Your task to perform on an android device: Show the shopping cart on costco.com. Image 0: 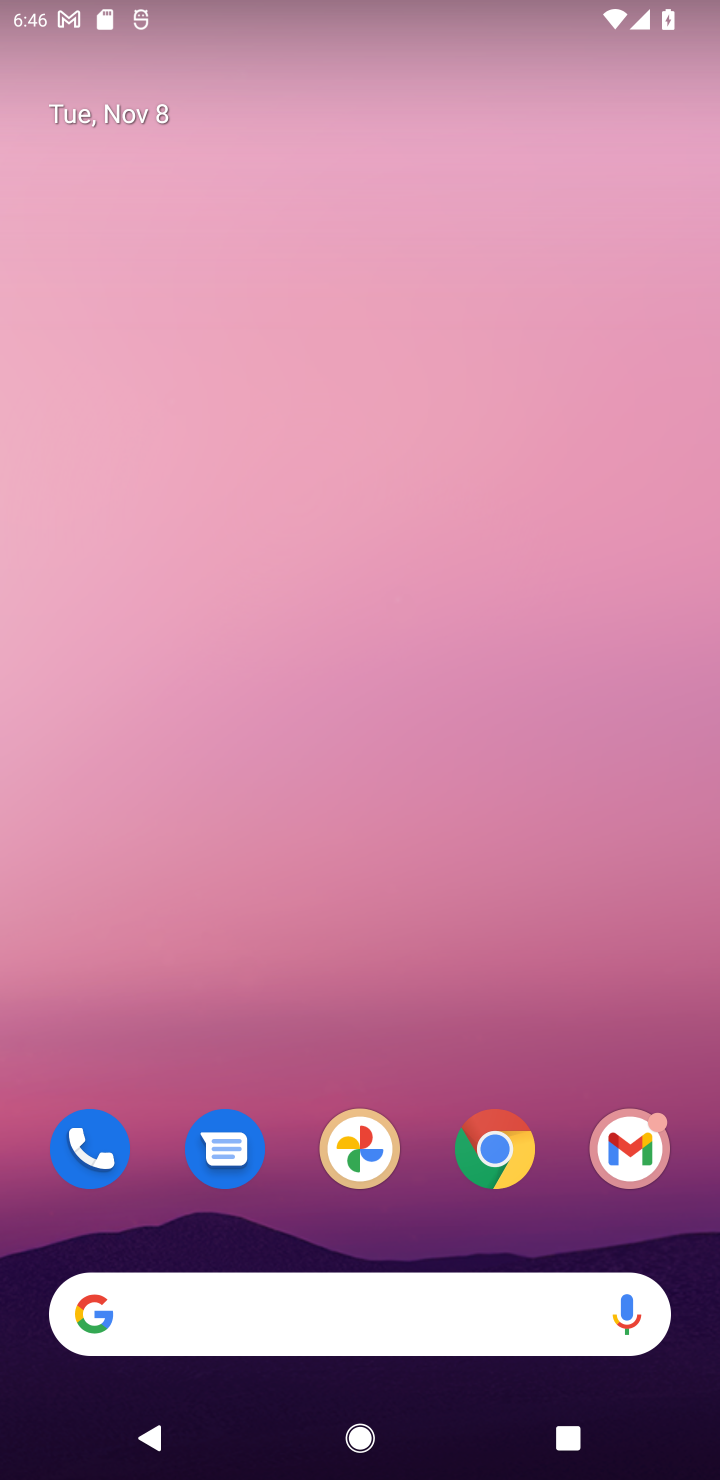
Step 0: click (481, 1166)
Your task to perform on an android device: Show the shopping cart on costco.com. Image 1: 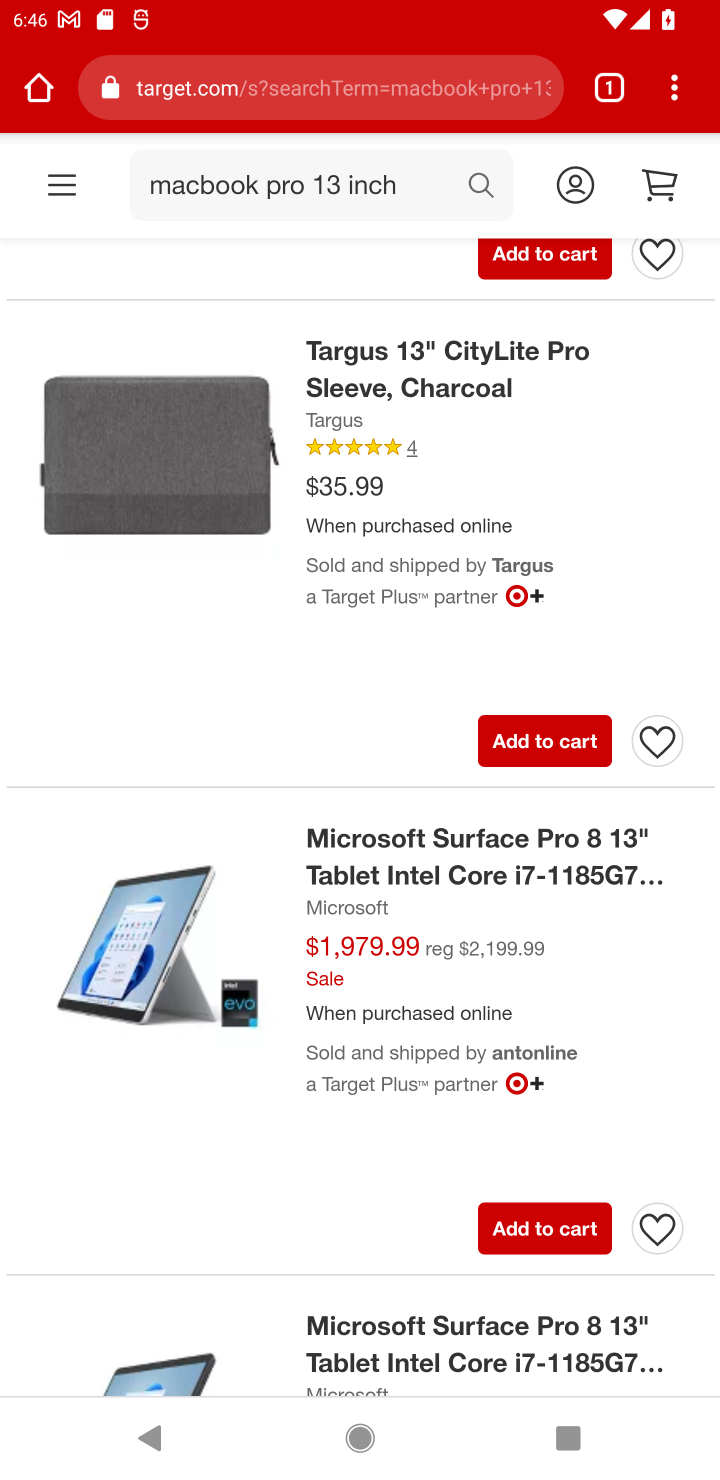
Step 1: click (355, 74)
Your task to perform on an android device: Show the shopping cart on costco.com. Image 2: 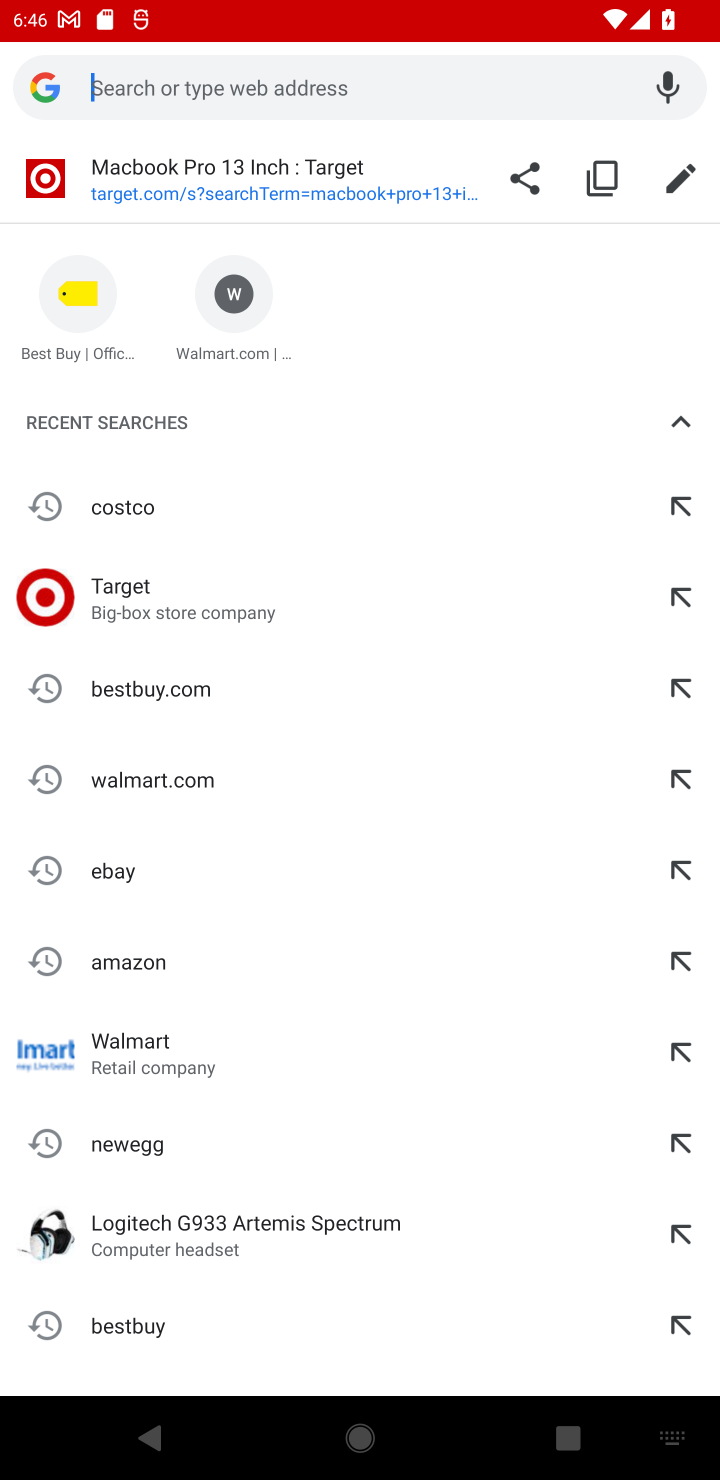
Step 2: type "costco.com"
Your task to perform on an android device: Show the shopping cart on costco.com. Image 3: 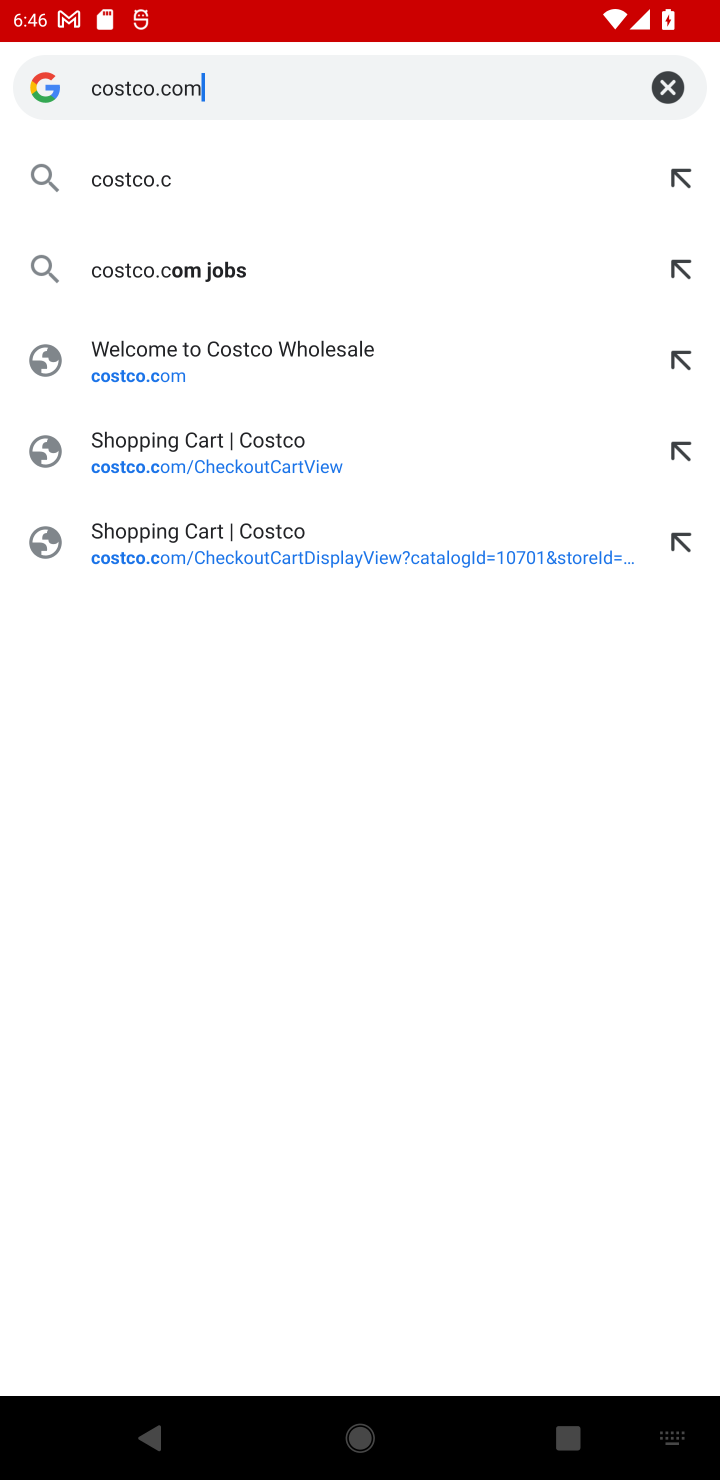
Step 3: press enter
Your task to perform on an android device: Show the shopping cart on costco.com. Image 4: 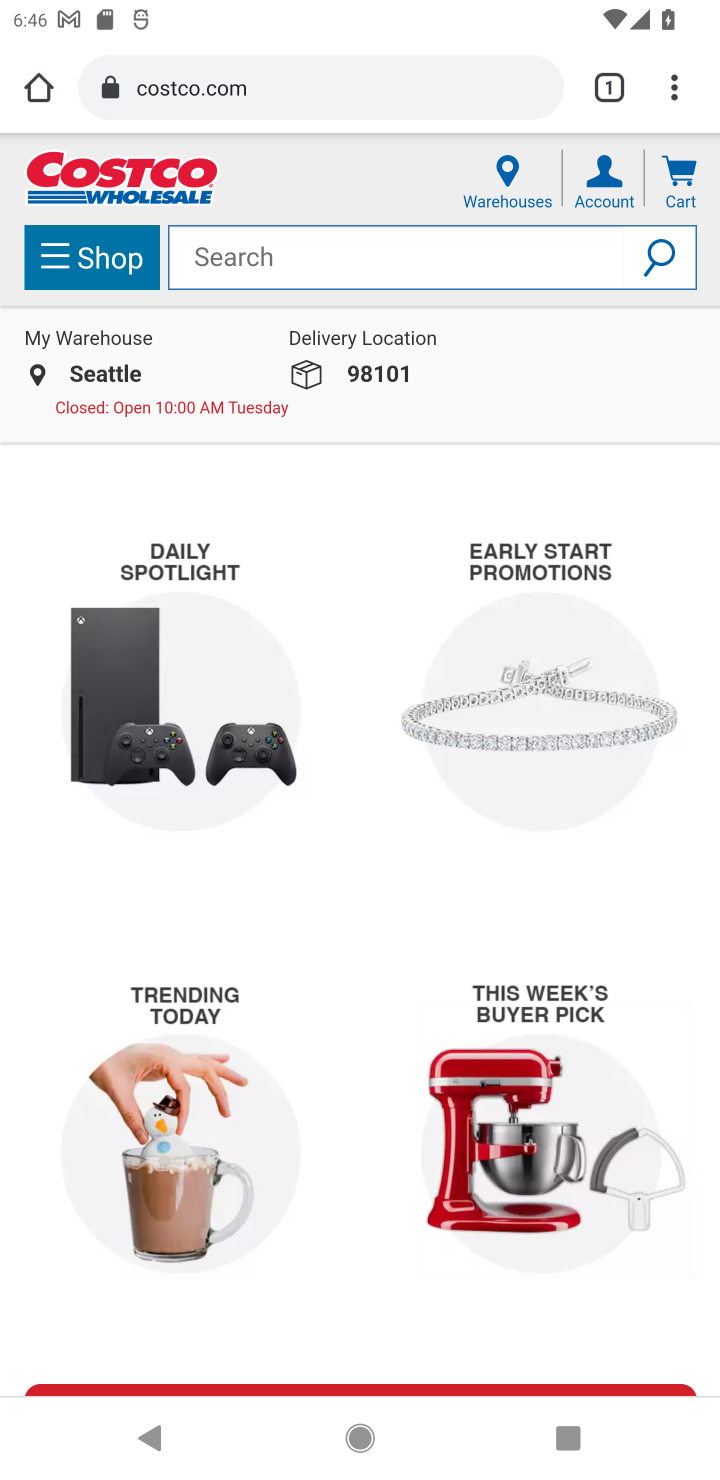
Step 4: click (683, 181)
Your task to perform on an android device: Show the shopping cart on costco.com. Image 5: 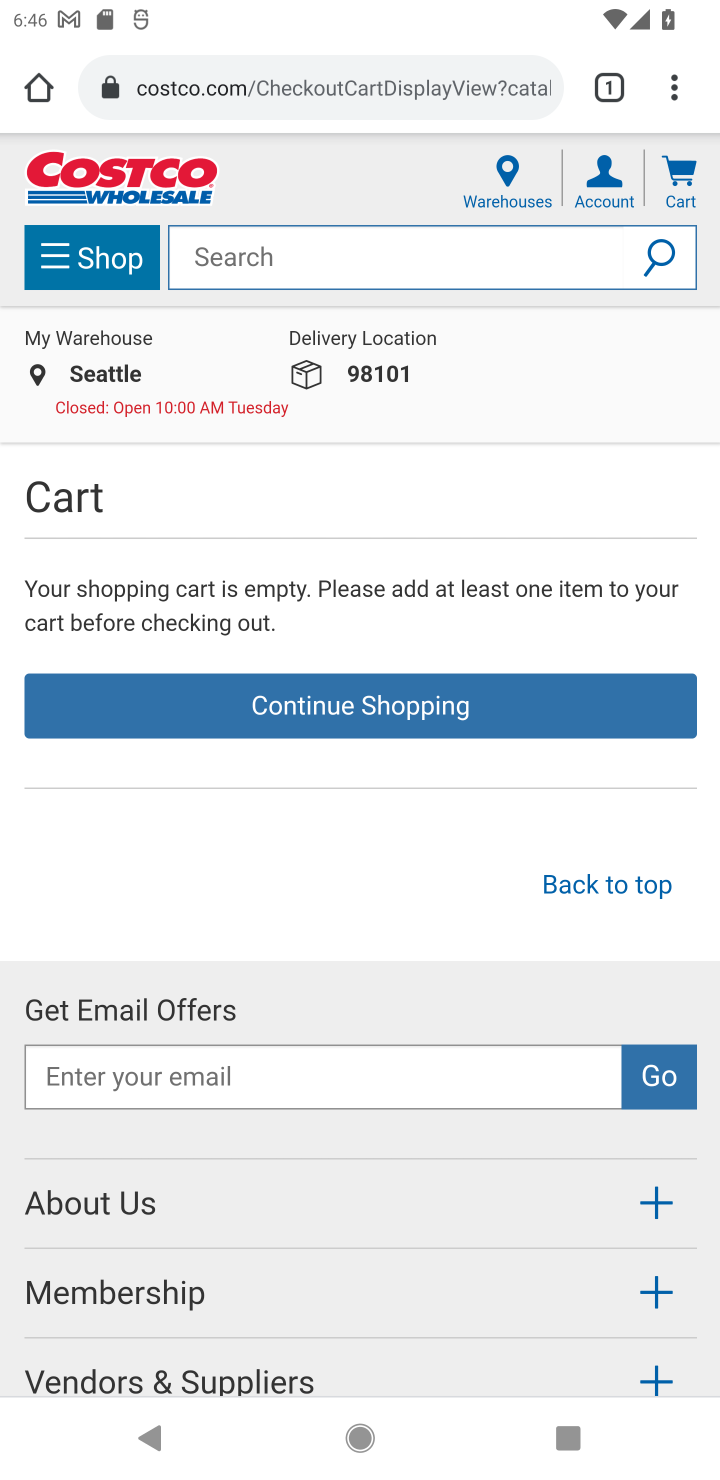
Step 5: task complete